Your task to perform on an android device: turn pop-ups off in chrome Image 0: 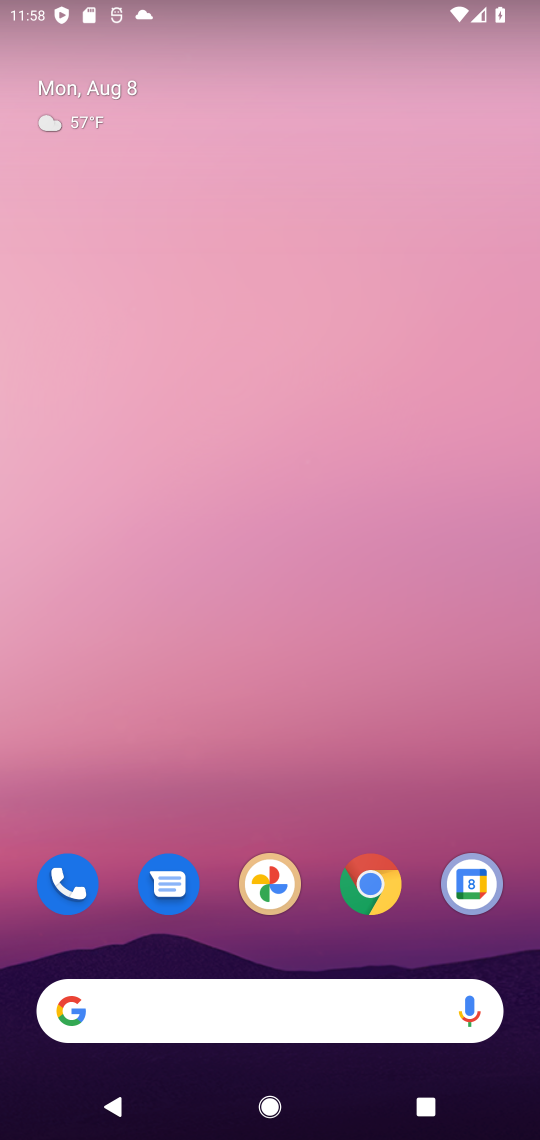
Step 0: click (324, 861)
Your task to perform on an android device: turn pop-ups off in chrome Image 1: 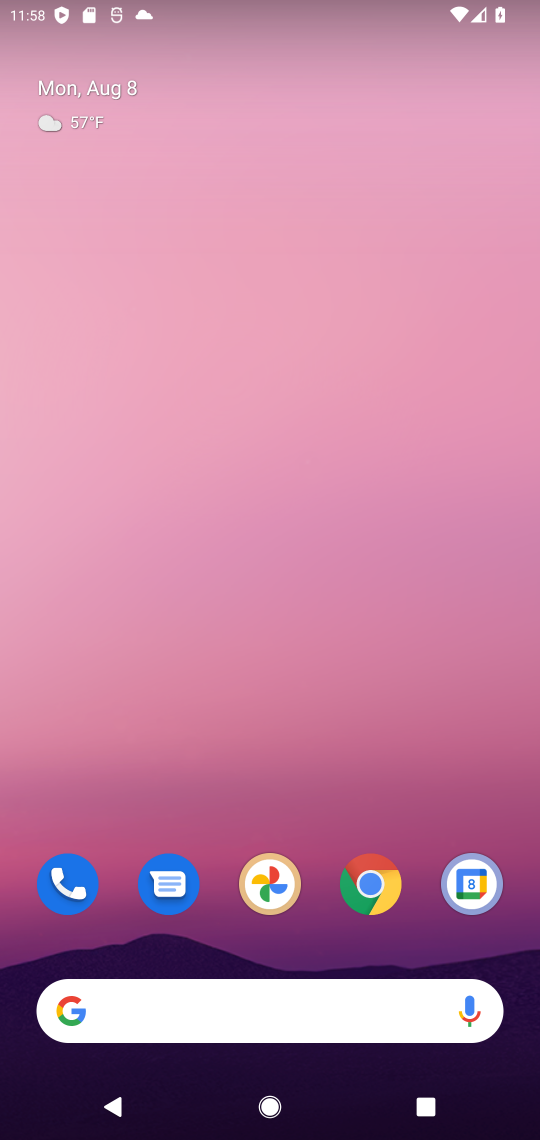
Step 1: click (324, 861)
Your task to perform on an android device: turn pop-ups off in chrome Image 2: 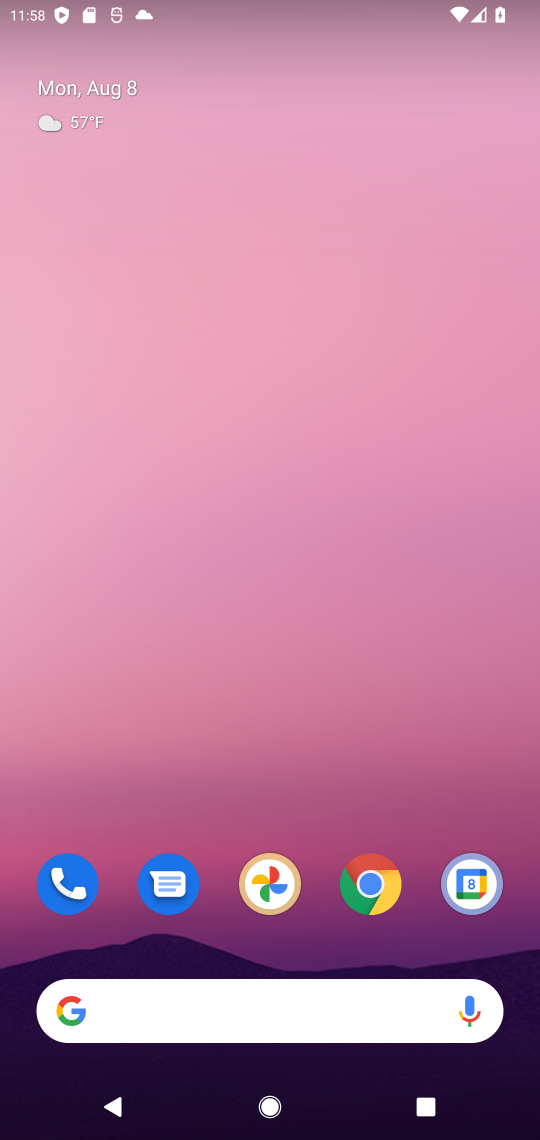
Step 2: click (393, 905)
Your task to perform on an android device: turn pop-ups off in chrome Image 3: 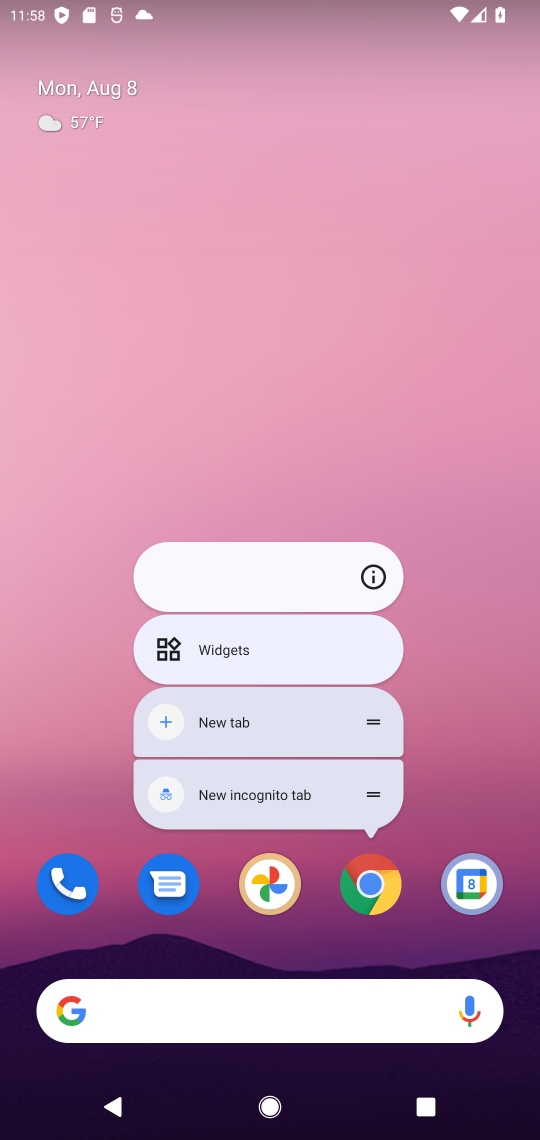
Step 3: click (393, 905)
Your task to perform on an android device: turn pop-ups off in chrome Image 4: 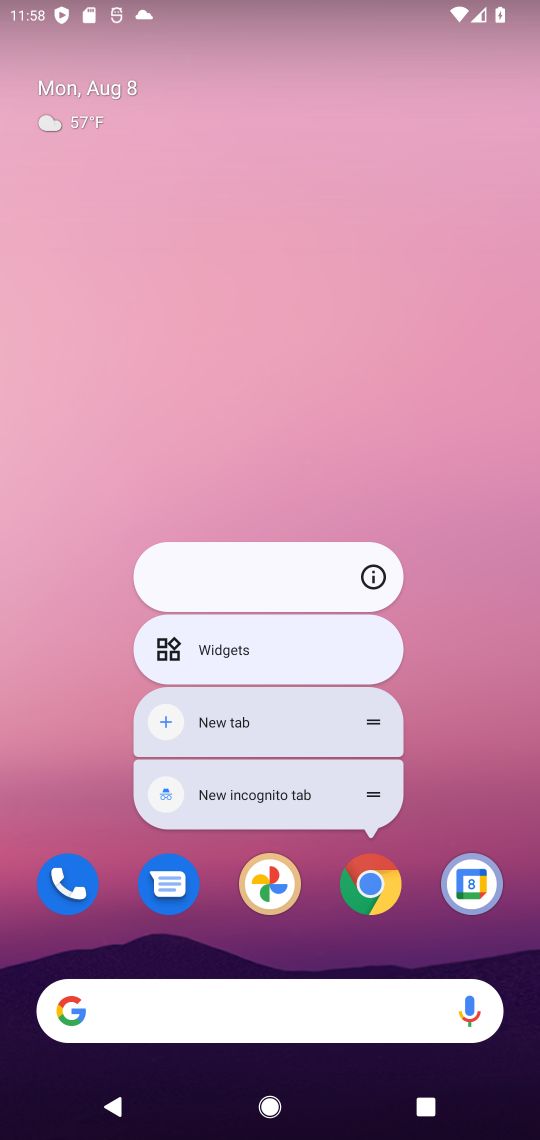
Step 4: click (393, 905)
Your task to perform on an android device: turn pop-ups off in chrome Image 5: 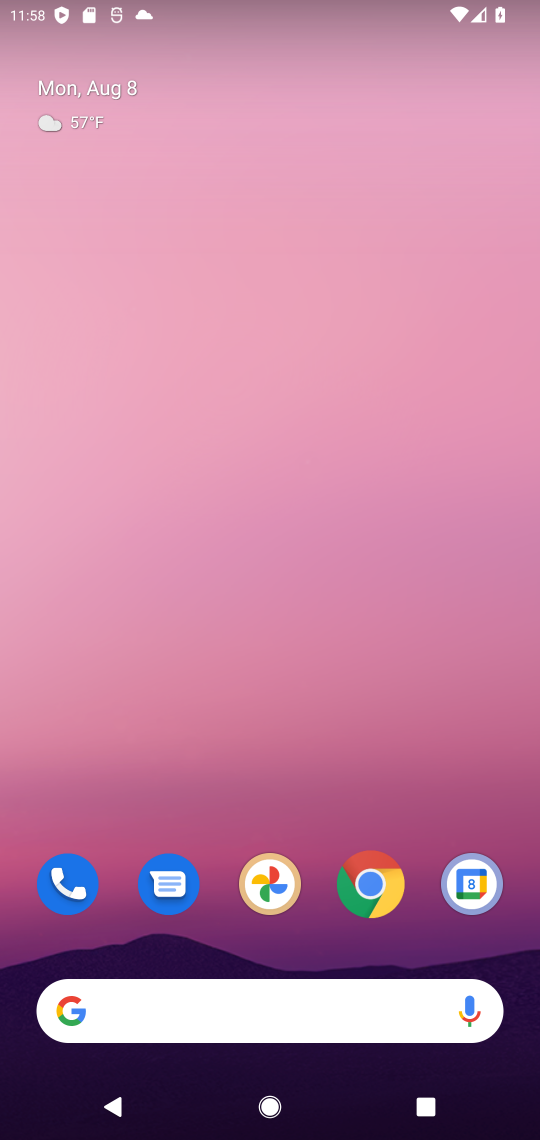
Step 5: click (393, 905)
Your task to perform on an android device: turn pop-ups off in chrome Image 6: 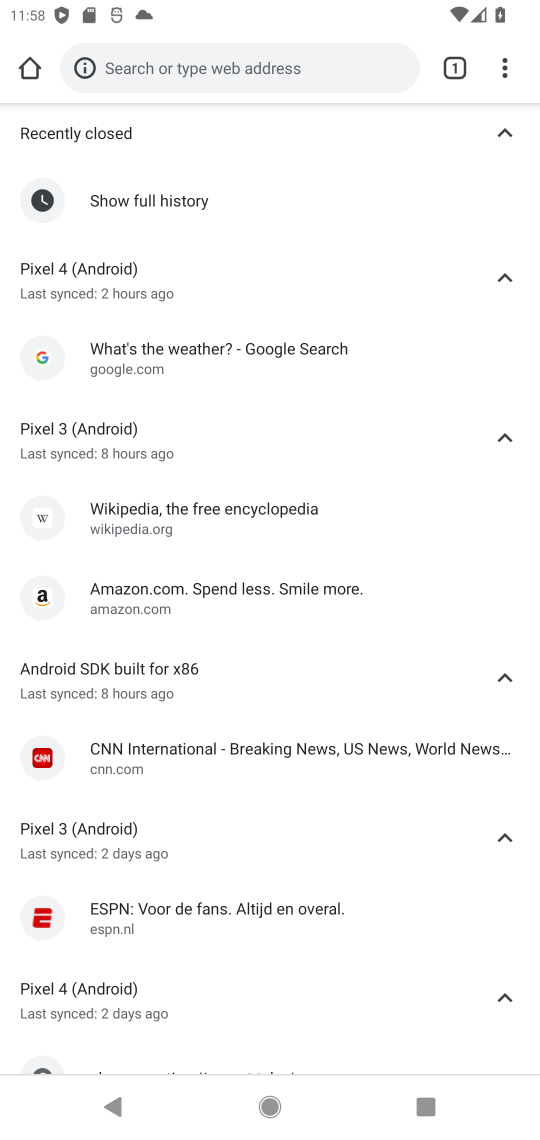
Step 6: click (505, 52)
Your task to perform on an android device: turn pop-ups off in chrome Image 7: 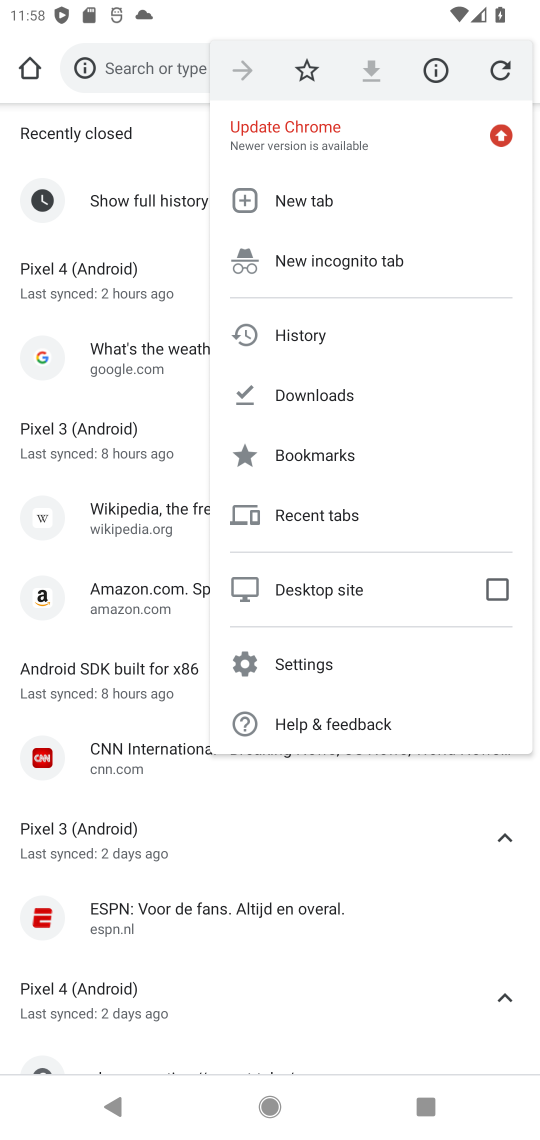
Step 7: click (316, 661)
Your task to perform on an android device: turn pop-ups off in chrome Image 8: 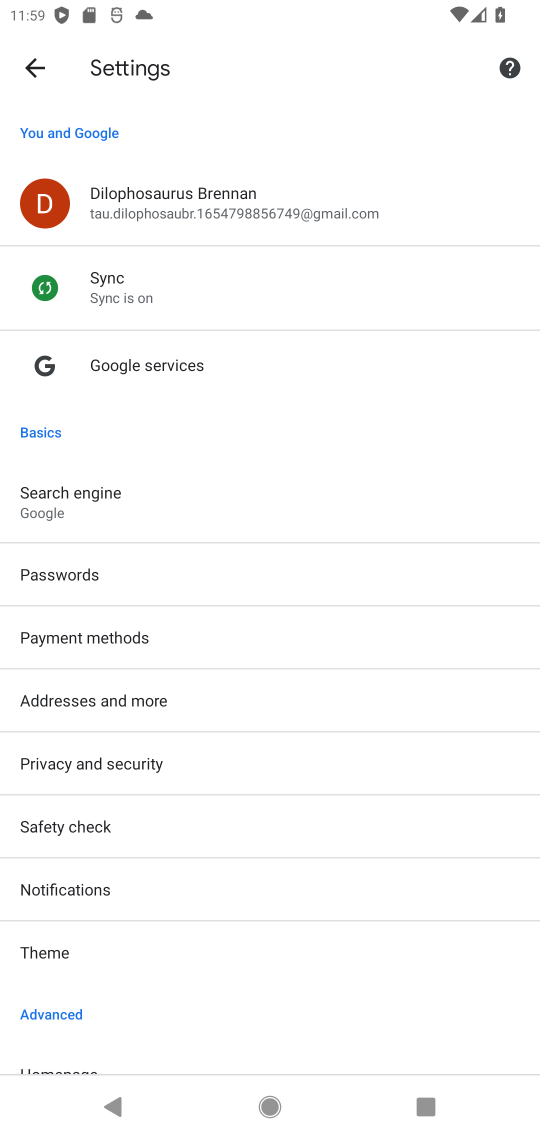
Step 8: drag from (161, 703) to (207, 195)
Your task to perform on an android device: turn pop-ups off in chrome Image 9: 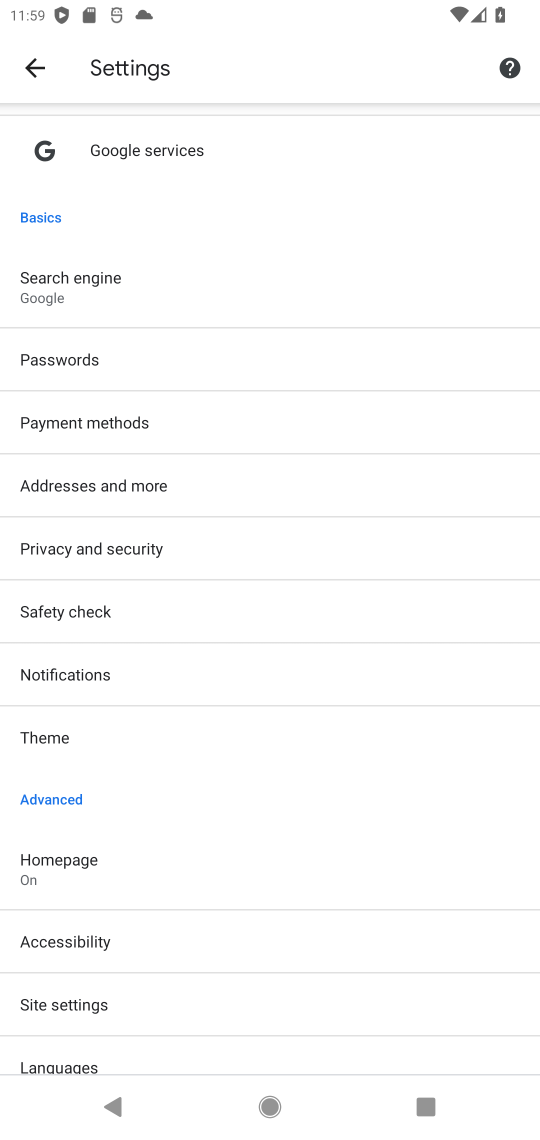
Step 9: click (114, 999)
Your task to perform on an android device: turn pop-ups off in chrome Image 10: 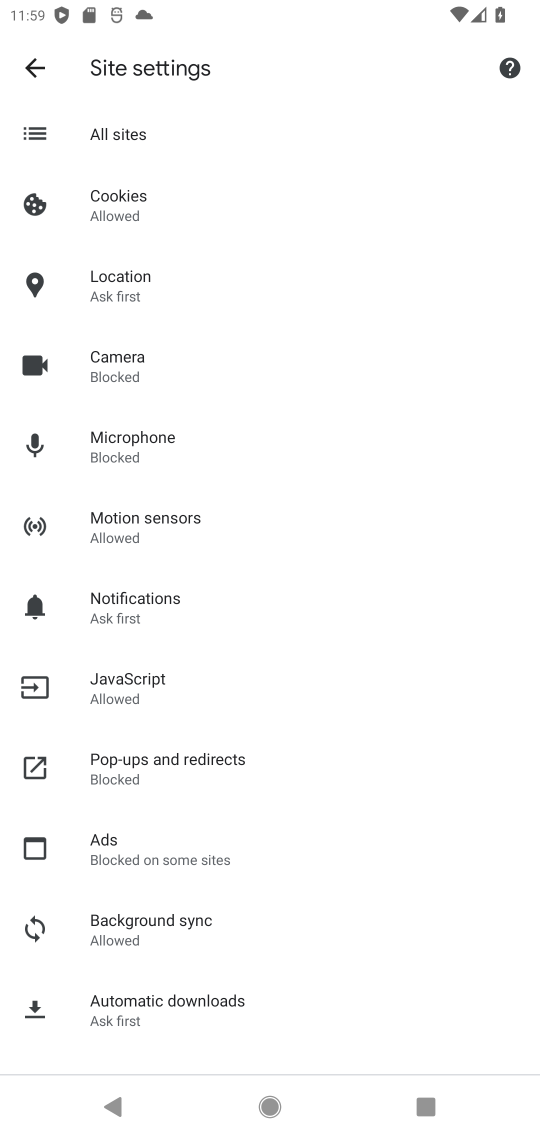
Step 10: click (192, 766)
Your task to perform on an android device: turn pop-ups off in chrome Image 11: 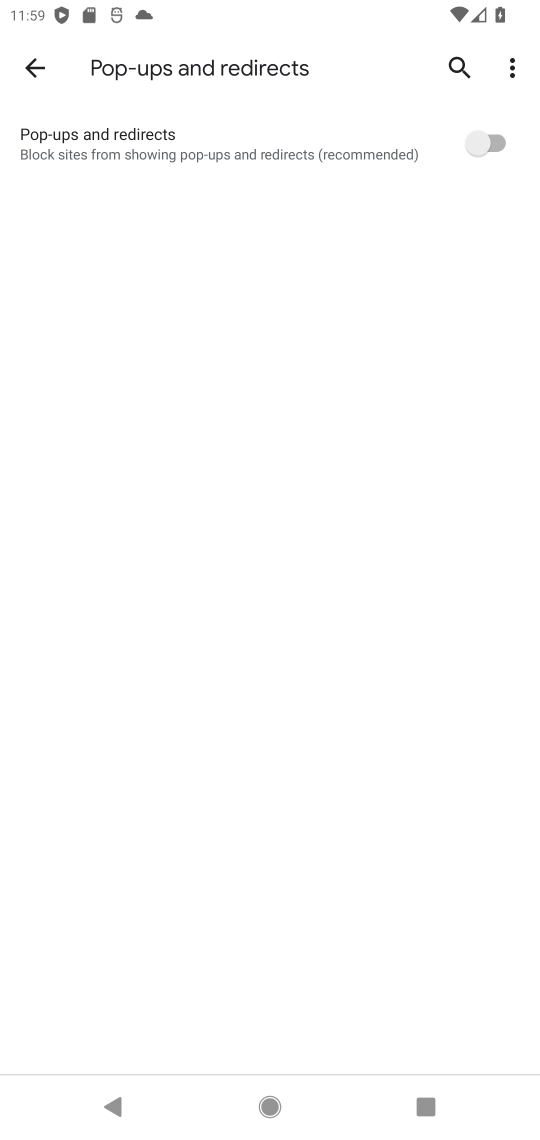
Step 11: task complete